Your task to perform on an android device: Go to Google maps Image 0: 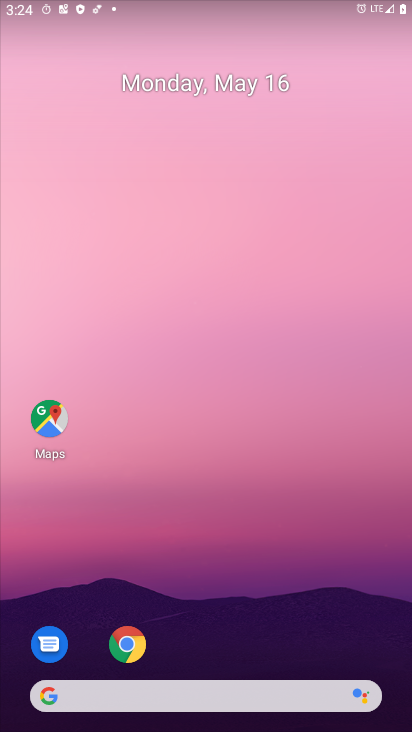
Step 0: drag from (230, 589) to (241, 189)
Your task to perform on an android device: Go to Google maps Image 1: 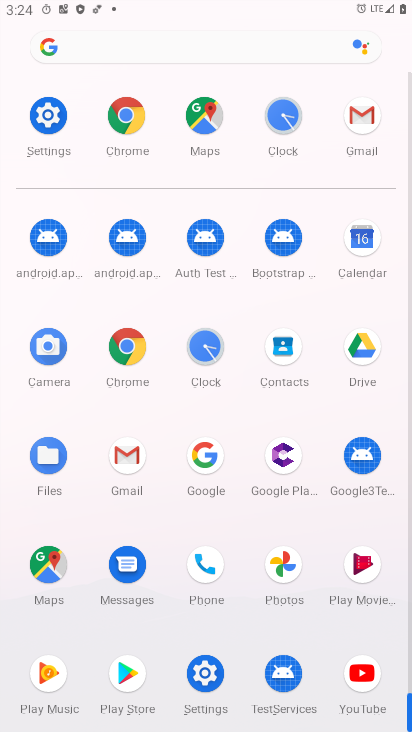
Step 1: click (54, 587)
Your task to perform on an android device: Go to Google maps Image 2: 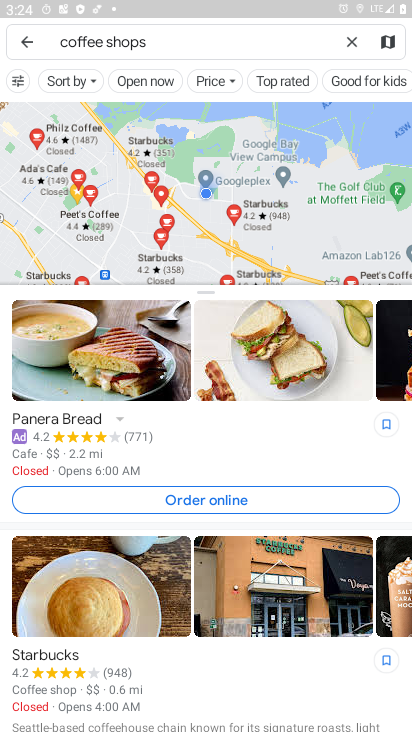
Step 2: task complete